Your task to perform on an android device: Go to Google maps Image 0: 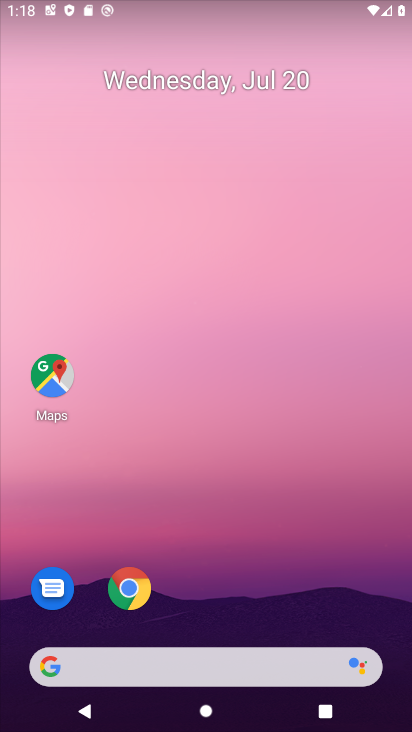
Step 0: drag from (373, 604) to (201, 103)
Your task to perform on an android device: Go to Google maps Image 1: 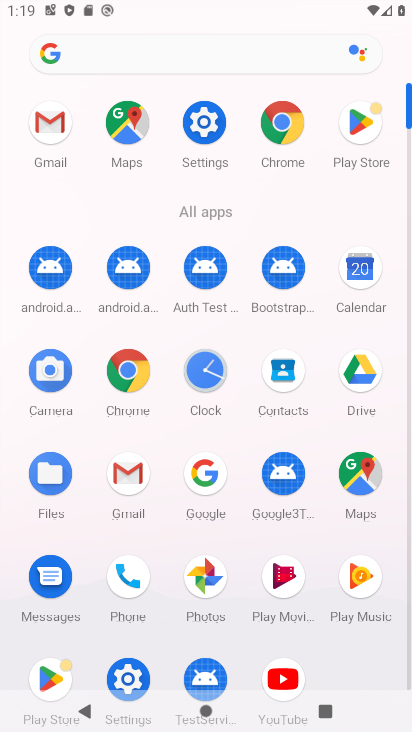
Step 1: click (345, 481)
Your task to perform on an android device: Go to Google maps Image 2: 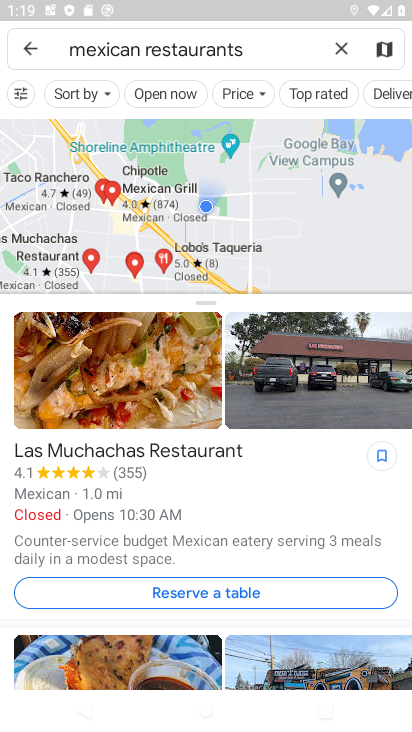
Step 2: click (336, 46)
Your task to perform on an android device: Go to Google maps Image 3: 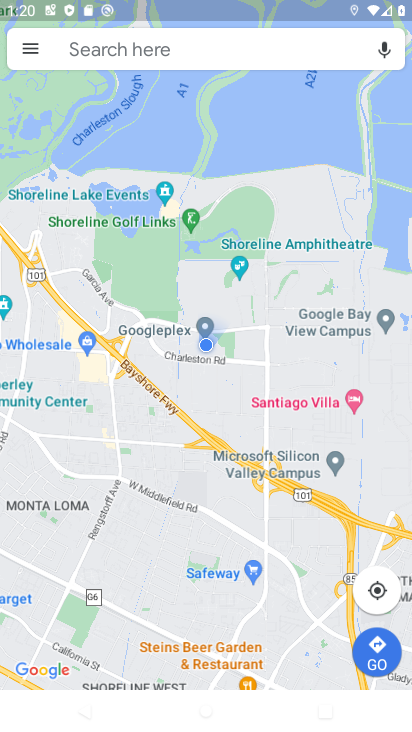
Step 3: task complete